Your task to perform on an android device: Open calendar and show me the third week of next month Image 0: 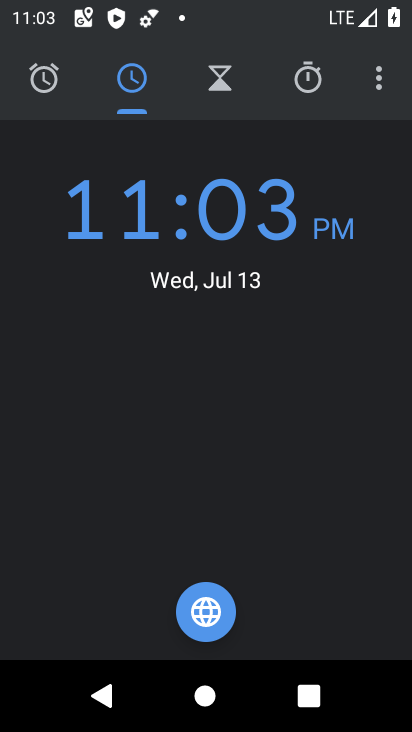
Step 0: press home button
Your task to perform on an android device: Open calendar and show me the third week of next month Image 1: 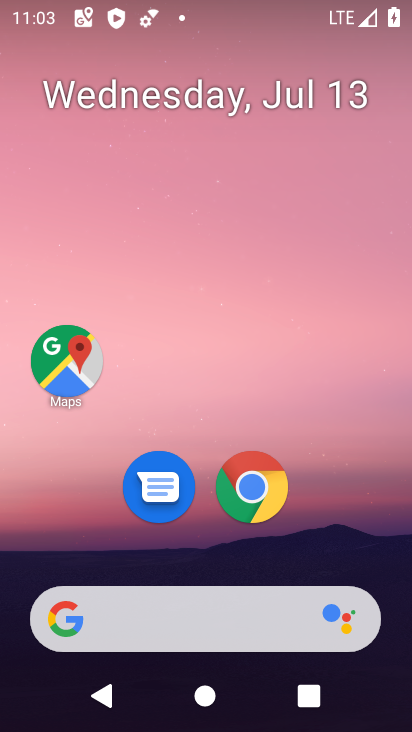
Step 1: drag from (216, 574) to (179, 71)
Your task to perform on an android device: Open calendar and show me the third week of next month Image 2: 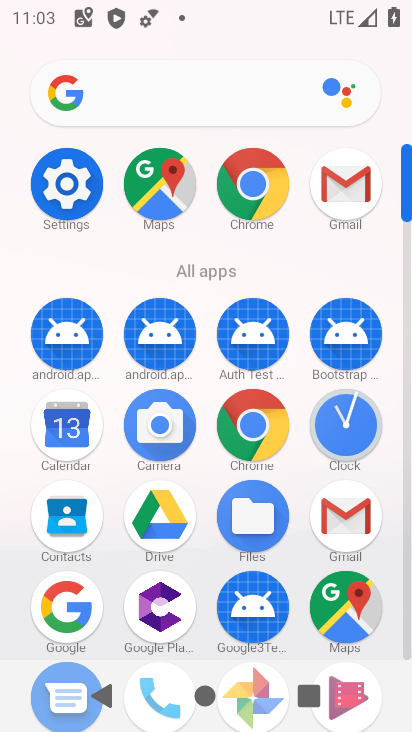
Step 2: click (58, 431)
Your task to perform on an android device: Open calendar and show me the third week of next month Image 3: 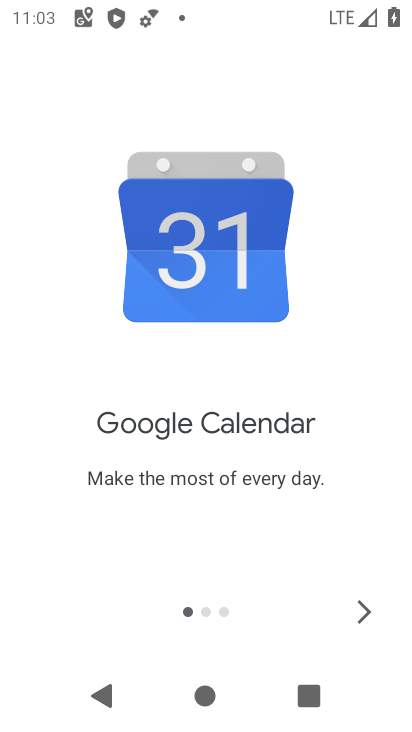
Step 3: click (358, 607)
Your task to perform on an android device: Open calendar and show me the third week of next month Image 4: 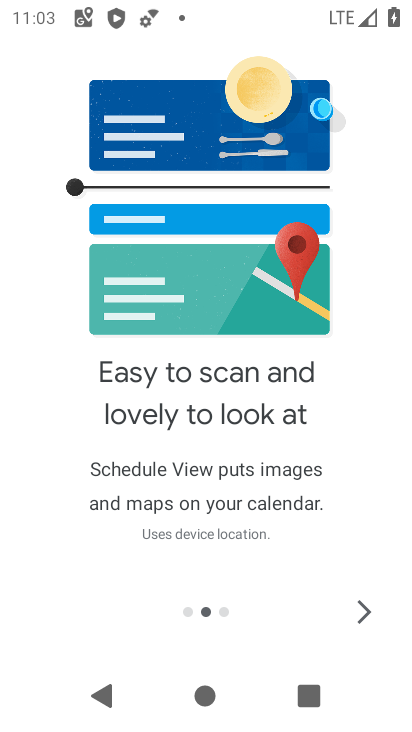
Step 4: click (358, 607)
Your task to perform on an android device: Open calendar and show me the third week of next month Image 5: 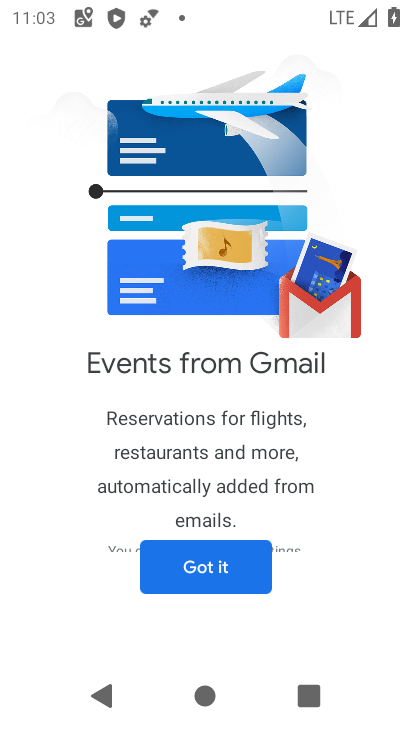
Step 5: click (246, 587)
Your task to perform on an android device: Open calendar and show me the third week of next month Image 6: 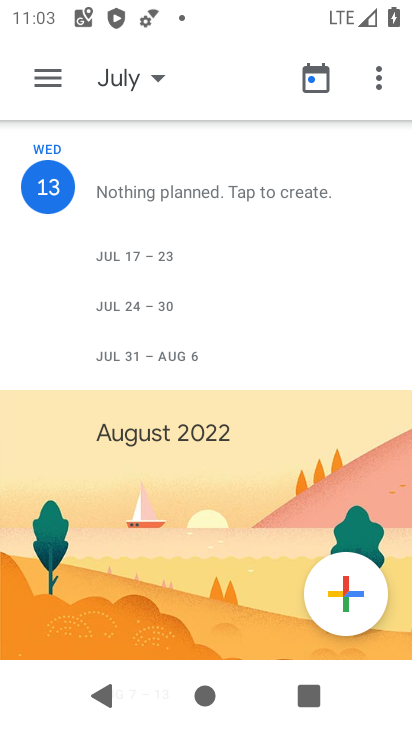
Step 6: click (316, 80)
Your task to perform on an android device: Open calendar and show me the third week of next month Image 7: 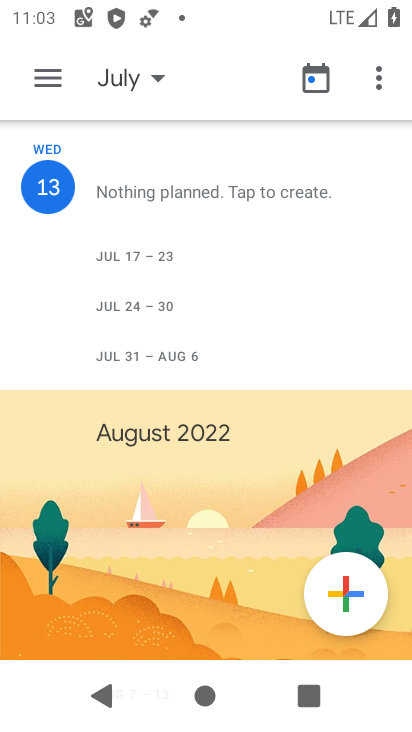
Step 7: click (42, 82)
Your task to perform on an android device: Open calendar and show me the third week of next month Image 8: 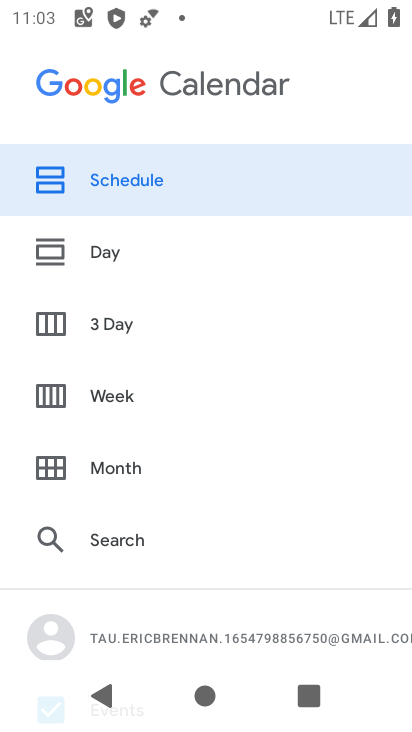
Step 8: click (139, 391)
Your task to perform on an android device: Open calendar and show me the third week of next month Image 9: 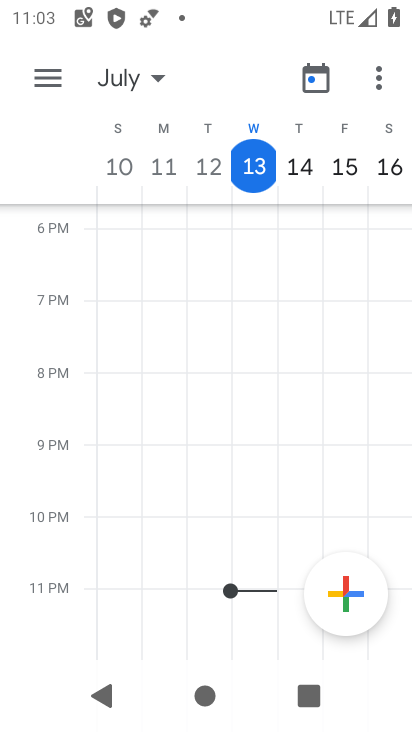
Step 9: task complete